Your task to perform on an android device: Open the calendar and show me this week's events? Image 0: 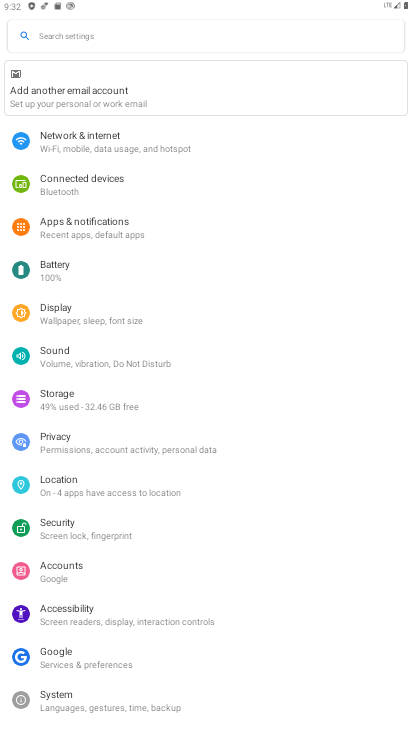
Step 0: press home button
Your task to perform on an android device: Open the calendar and show me this week's events? Image 1: 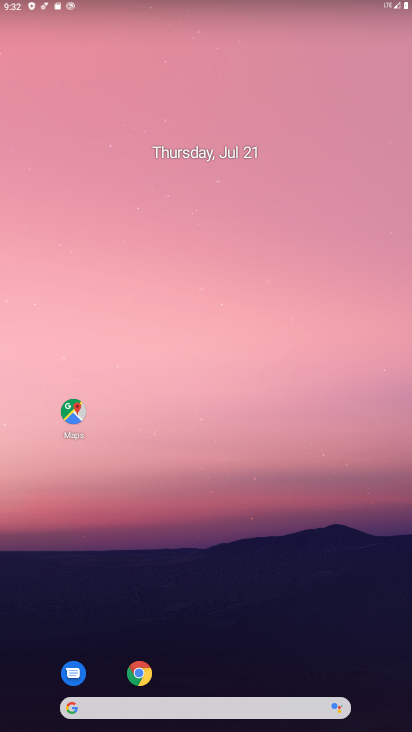
Step 1: drag from (239, 633) to (288, 154)
Your task to perform on an android device: Open the calendar and show me this week's events? Image 2: 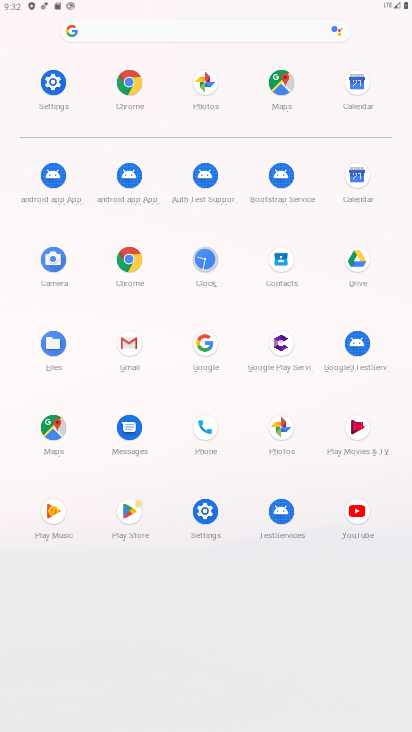
Step 2: click (349, 193)
Your task to perform on an android device: Open the calendar and show me this week's events? Image 3: 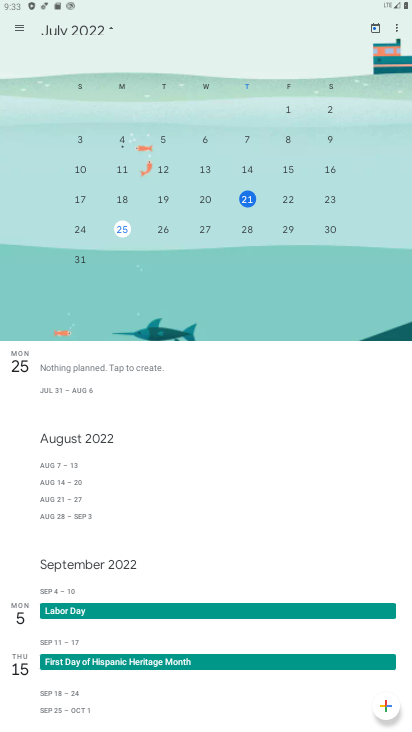
Step 3: click (282, 200)
Your task to perform on an android device: Open the calendar and show me this week's events? Image 4: 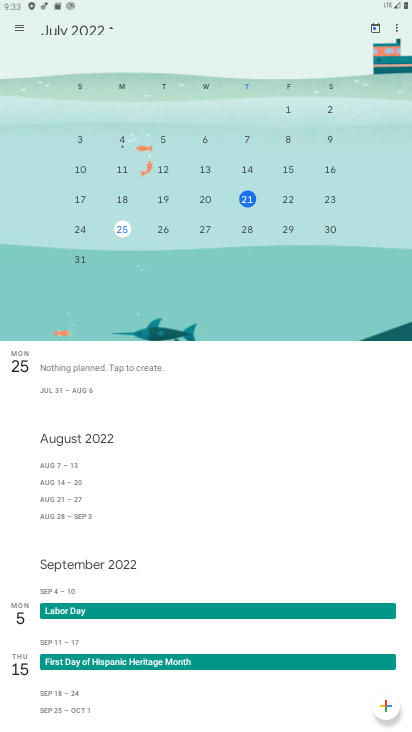
Step 4: click (323, 198)
Your task to perform on an android device: Open the calendar and show me this week's events? Image 5: 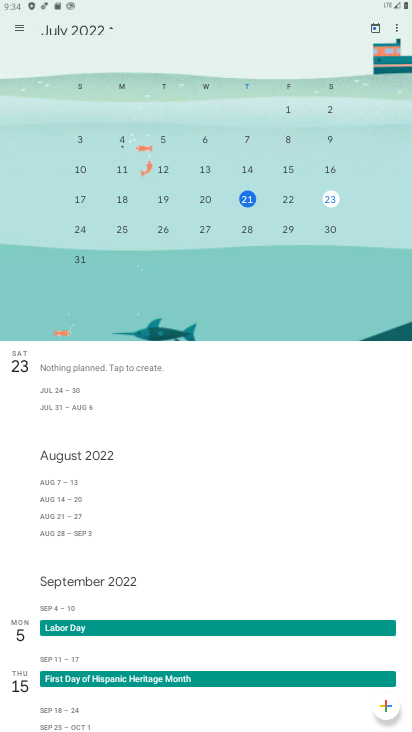
Step 5: task complete